Your task to perform on an android device: Open calendar and show me the second week of next month Image 0: 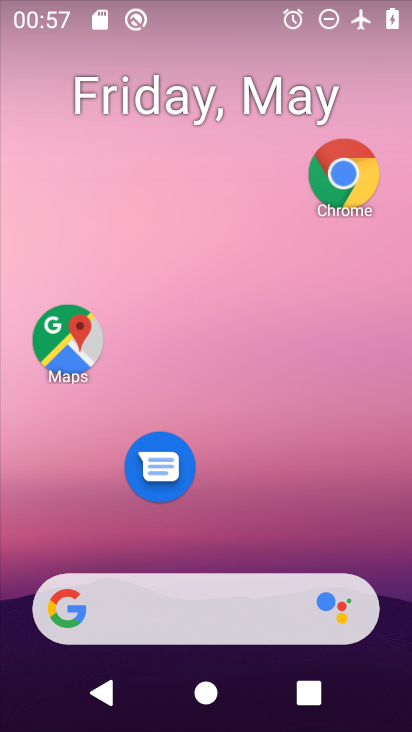
Step 0: drag from (259, 502) to (305, 176)
Your task to perform on an android device: Open calendar and show me the second week of next month Image 1: 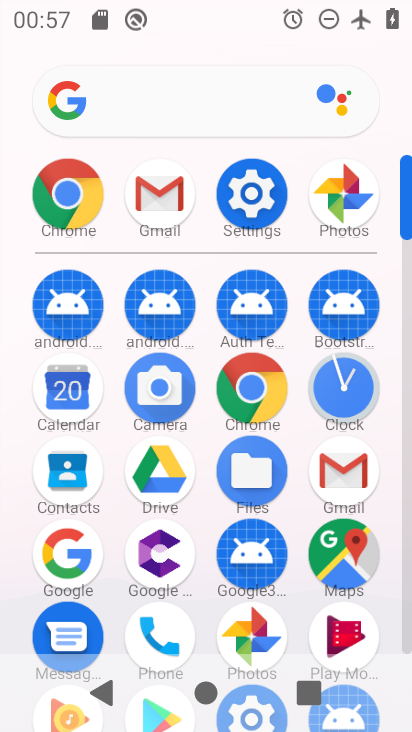
Step 1: click (54, 366)
Your task to perform on an android device: Open calendar and show me the second week of next month Image 2: 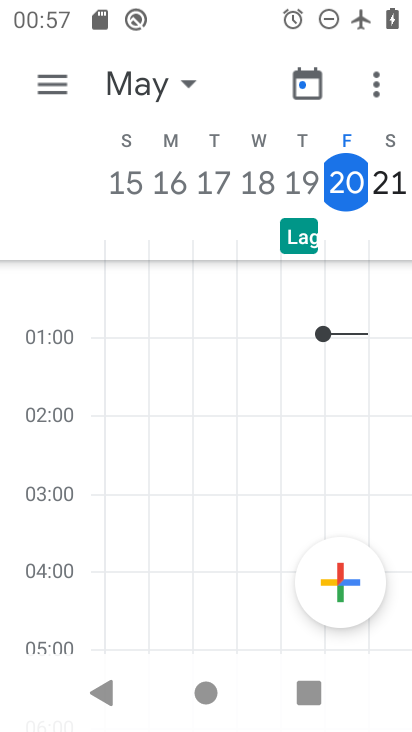
Step 2: click (35, 73)
Your task to perform on an android device: Open calendar and show me the second week of next month Image 3: 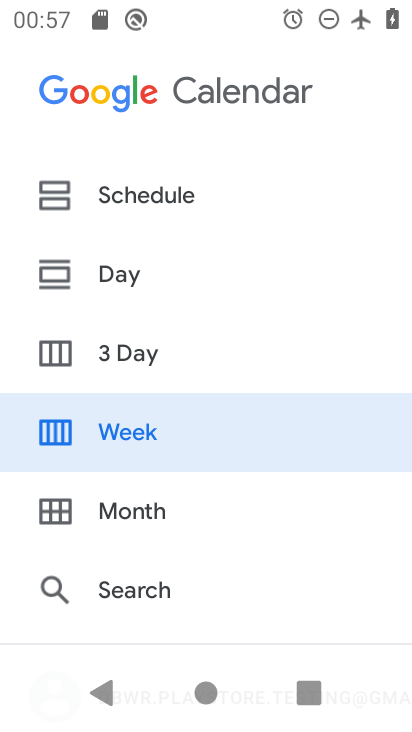
Step 3: click (125, 516)
Your task to perform on an android device: Open calendar and show me the second week of next month Image 4: 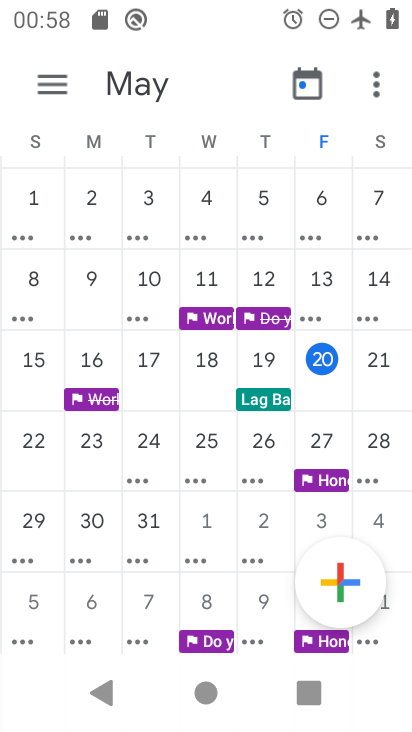
Step 4: task complete